Your task to perform on an android device: Clear the cart on ebay. Search for razer nari on ebay, select the first entry, add it to the cart, then select checkout. Image 0: 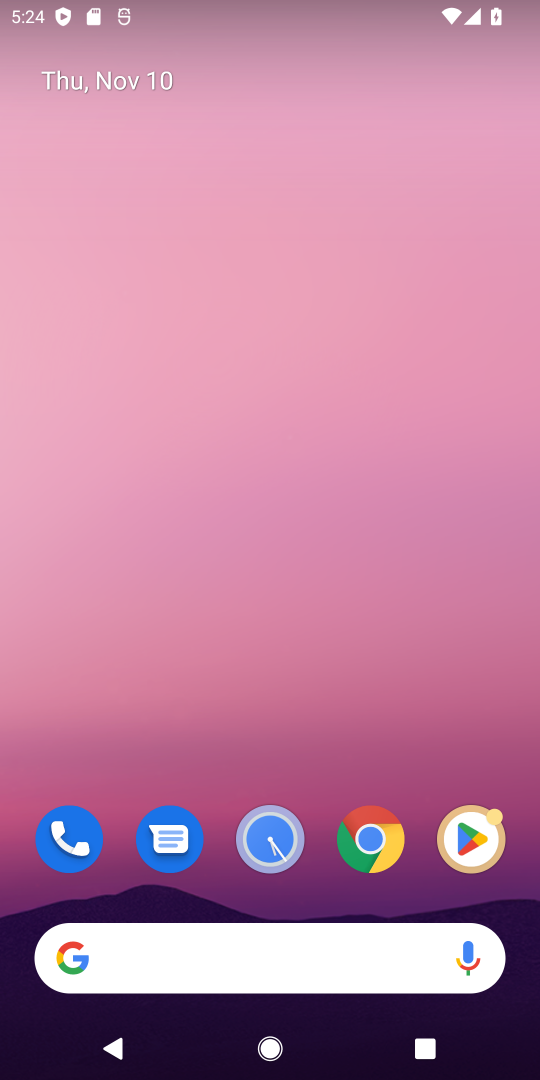
Step 0: click (367, 845)
Your task to perform on an android device: Clear the cart on ebay. Search for razer nari on ebay, select the first entry, add it to the cart, then select checkout. Image 1: 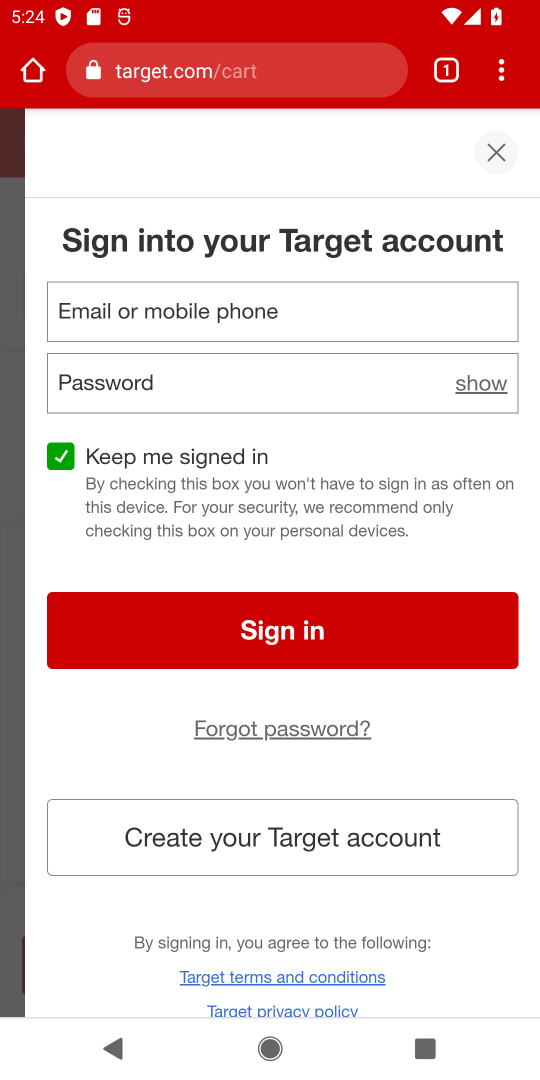
Step 1: click (448, 69)
Your task to perform on an android device: Clear the cart on ebay. Search for razer nari on ebay, select the first entry, add it to the cart, then select checkout. Image 2: 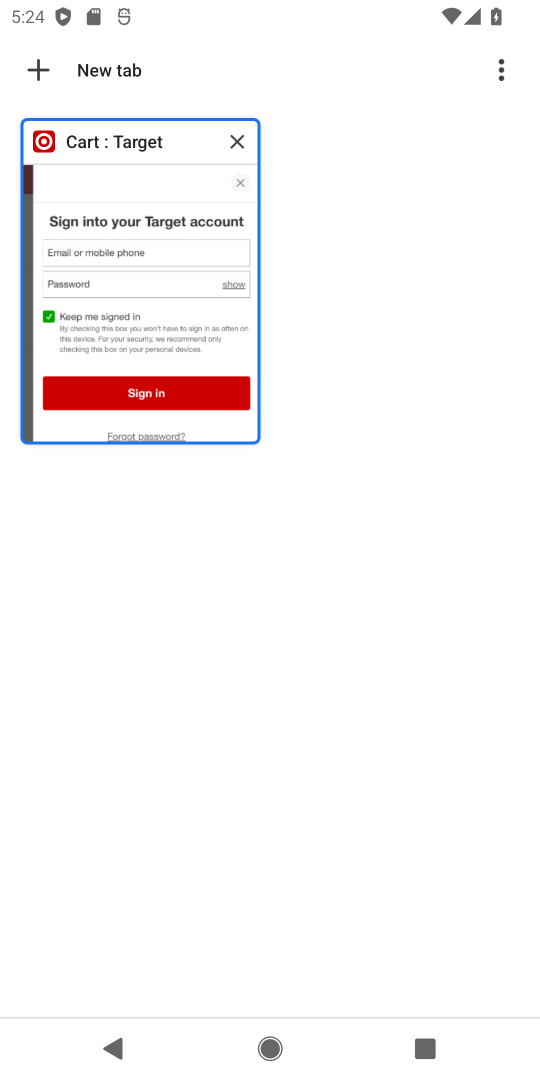
Step 2: click (45, 67)
Your task to perform on an android device: Clear the cart on ebay. Search for razer nari on ebay, select the first entry, add it to the cart, then select checkout. Image 3: 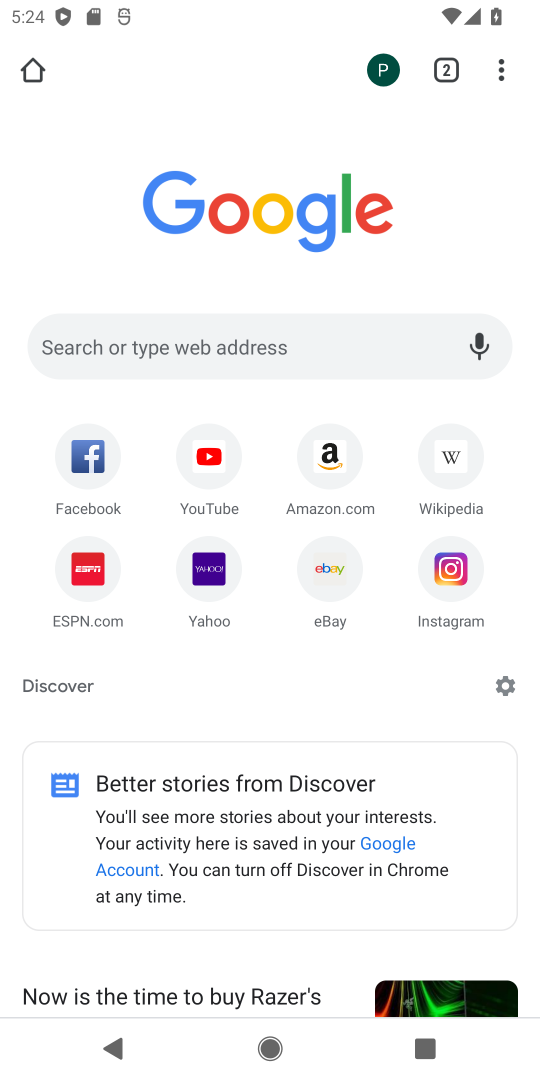
Step 3: click (337, 574)
Your task to perform on an android device: Clear the cart on ebay. Search for razer nari on ebay, select the first entry, add it to the cart, then select checkout. Image 4: 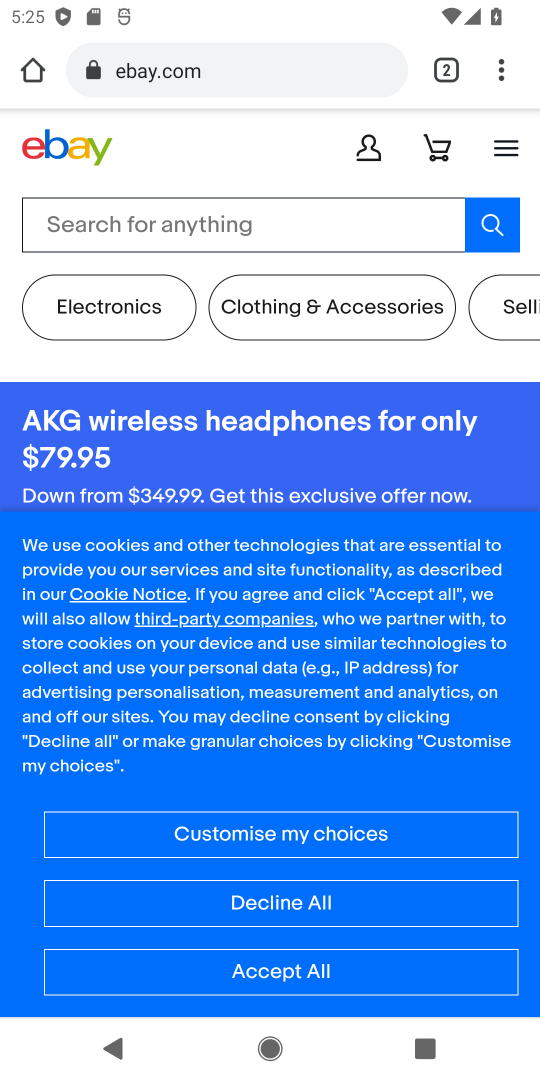
Step 4: click (293, 916)
Your task to perform on an android device: Clear the cart on ebay. Search for razer nari on ebay, select the first entry, add it to the cart, then select checkout. Image 5: 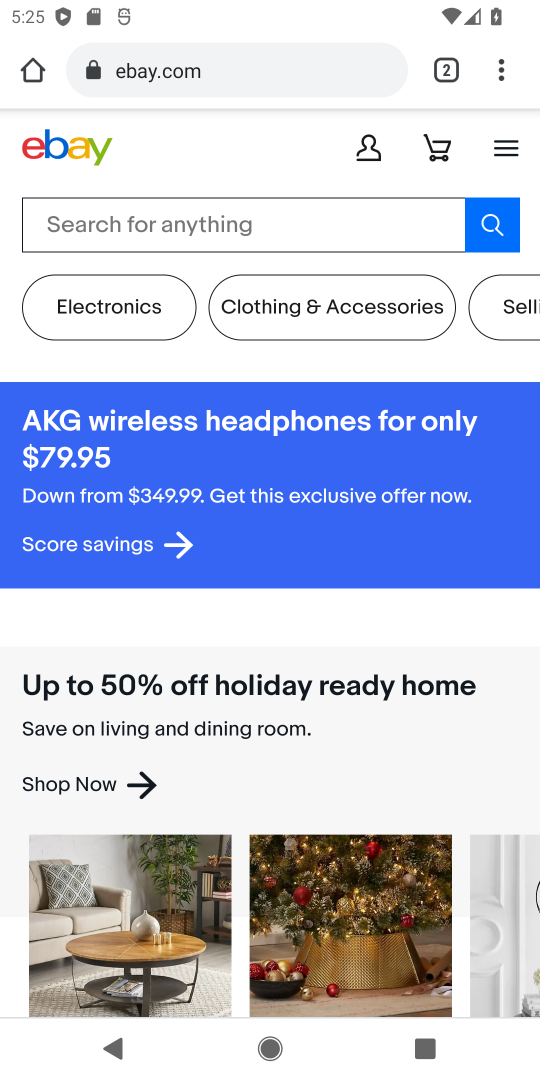
Step 5: click (208, 214)
Your task to perform on an android device: Clear the cart on ebay. Search for razer nari on ebay, select the first entry, add it to the cart, then select checkout. Image 6: 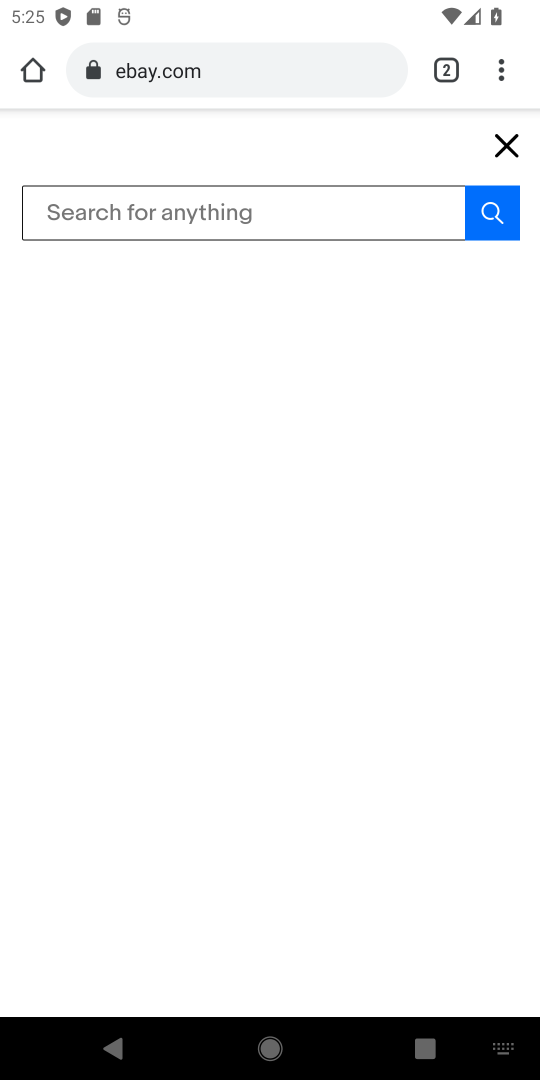
Step 6: type "razer nari"
Your task to perform on an android device: Clear the cart on ebay. Search for razer nari on ebay, select the first entry, add it to the cart, then select checkout. Image 7: 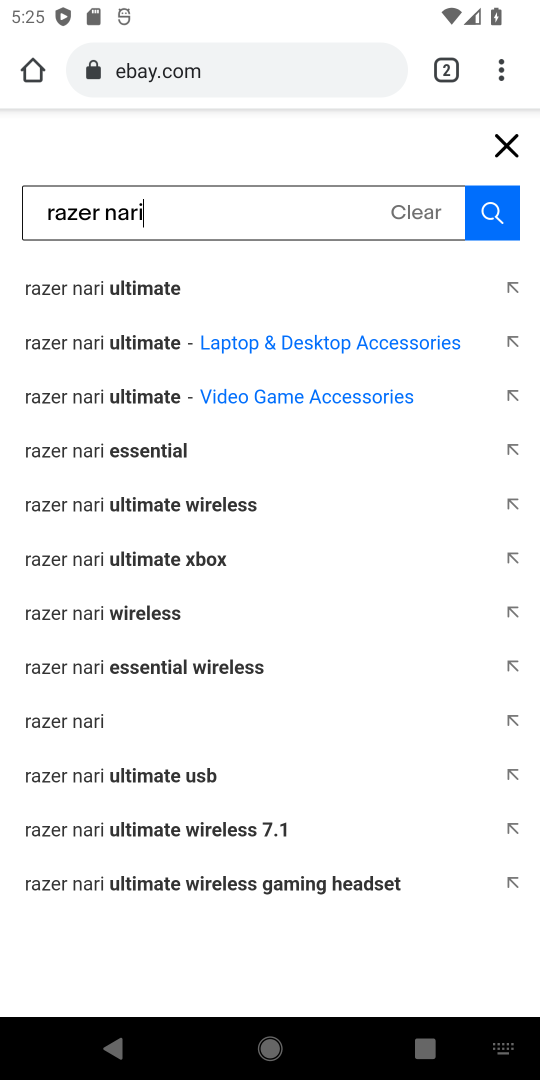
Step 7: click (93, 337)
Your task to perform on an android device: Clear the cart on ebay. Search for razer nari on ebay, select the first entry, add it to the cart, then select checkout. Image 8: 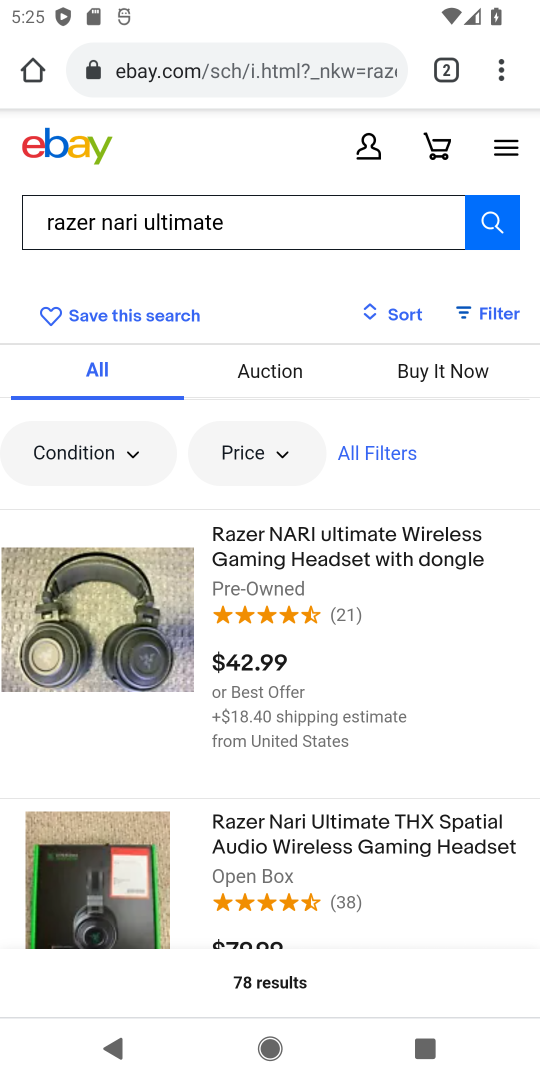
Step 8: click (305, 542)
Your task to perform on an android device: Clear the cart on ebay. Search for razer nari on ebay, select the first entry, add it to the cart, then select checkout. Image 9: 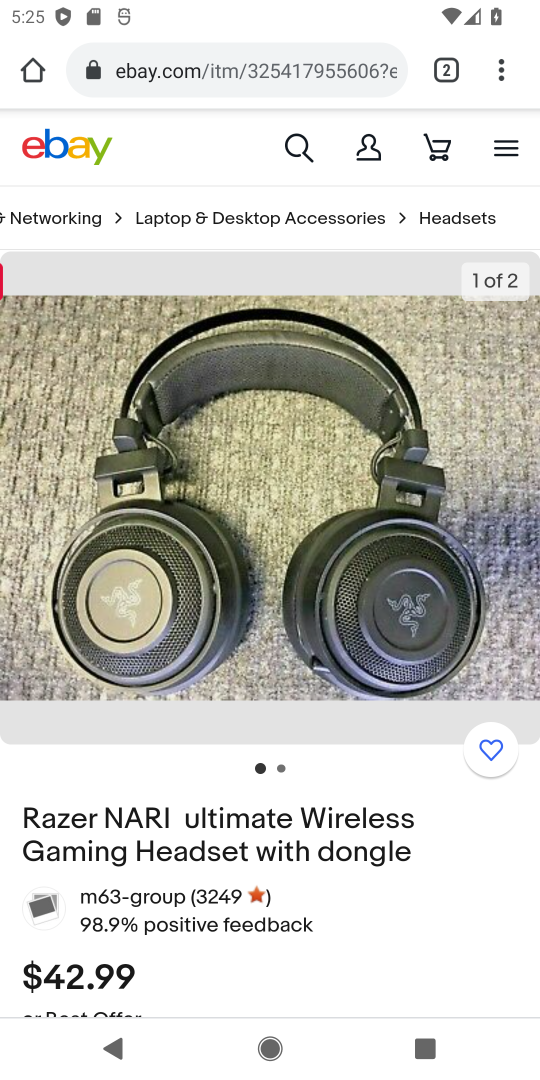
Step 9: drag from (296, 879) to (487, 218)
Your task to perform on an android device: Clear the cart on ebay. Search for razer nari on ebay, select the first entry, add it to the cart, then select checkout. Image 10: 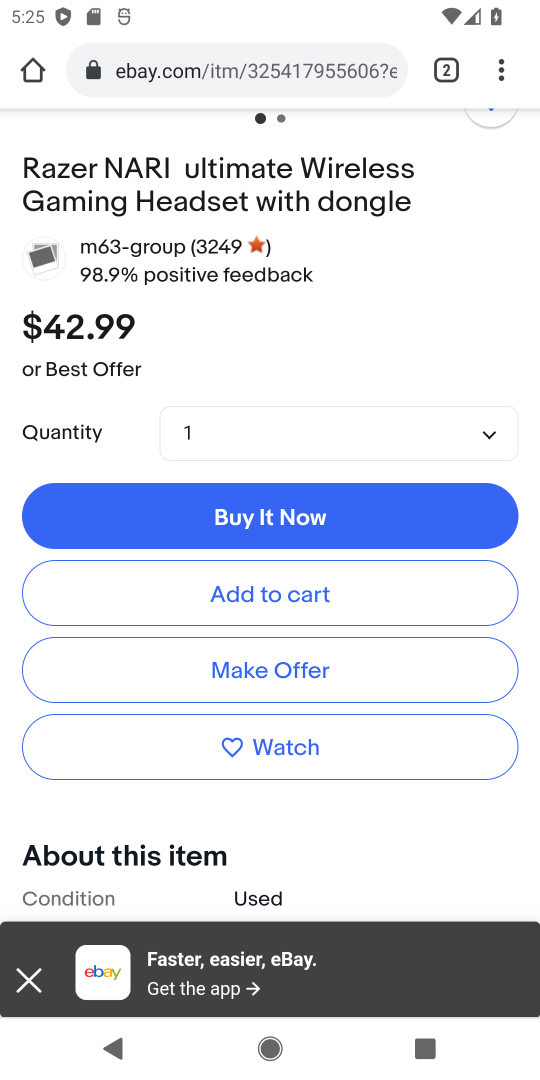
Step 10: click (306, 432)
Your task to perform on an android device: Clear the cart on ebay. Search for razer nari on ebay, select the first entry, add it to the cart, then select checkout. Image 11: 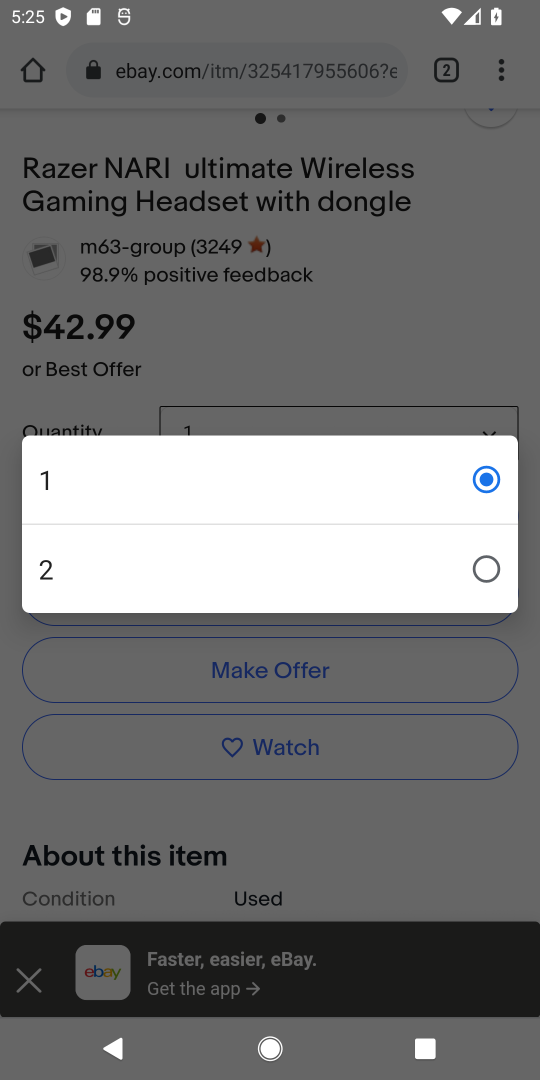
Step 11: click (395, 300)
Your task to perform on an android device: Clear the cart on ebay. Search for razer nari on ebay, select the first entry, add it to the cart, then select checkout. Image 12: 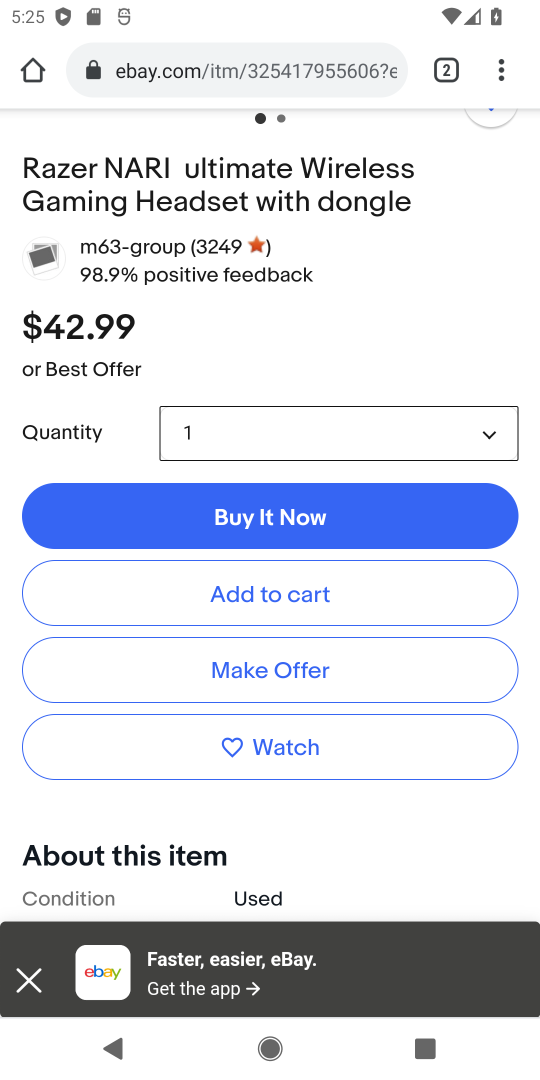
Step 12: click (317, 593)
Your task to perform on an android device: Clear the cart on ebay. Search for razer nari on ebay, select the first entry, add it to the cart, then select checkout. Image 13: 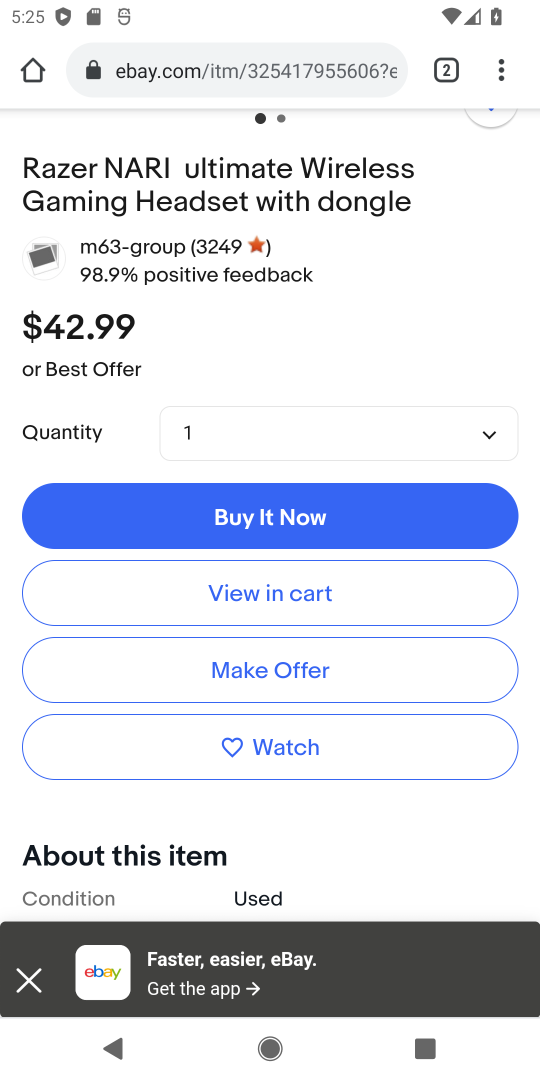
Step 13: task complete